Your task to perform on an android device: change alarm snooze length Image 0: 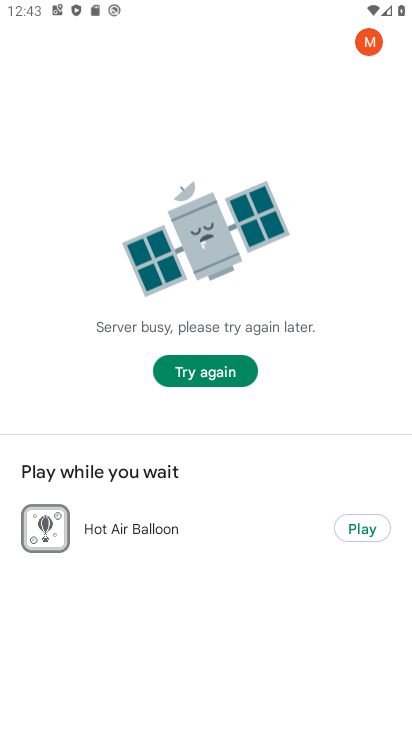
Step 0: press home button
Your task to perform on an android device: change alarm snooze length Image 1: 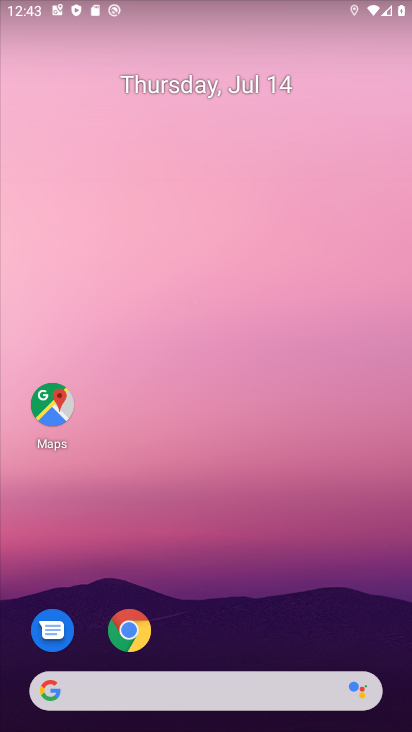
Step 1: drag from (182, 614) to (203, 233)
Your task to perform on an android device: change alarm snooze length Image 2: 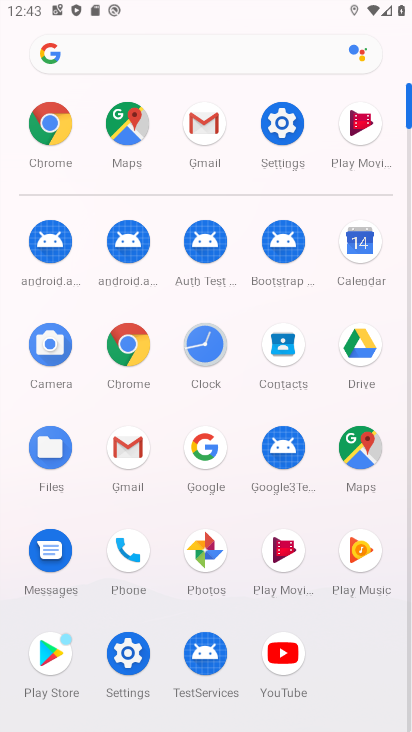
Step 2: click (200, 347)
Your task to perform on an android device: change alarm snooze length Image 3: 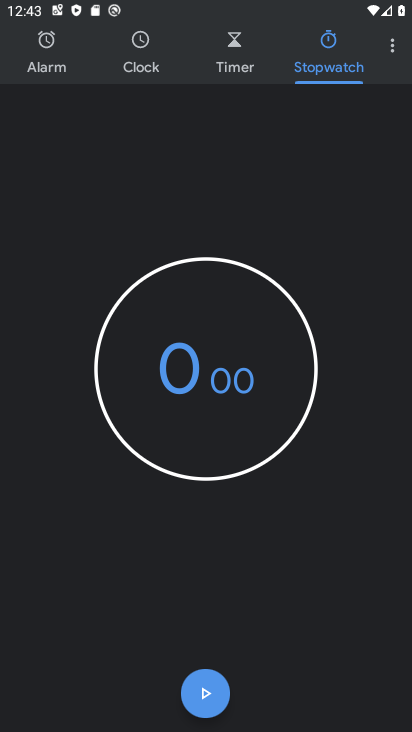
Step 3: click (390, 48)
Your task to perform on an android device: change alarm snooze length Image 4: 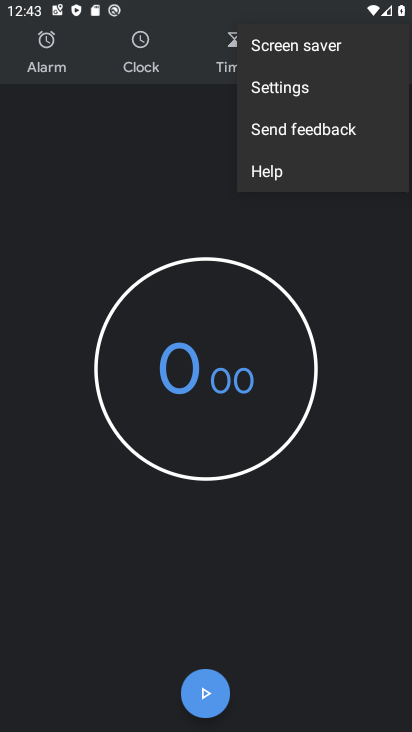
Step 4: click (272, 79)
Your task to perform on an android device: change alarm snooze length Image 5: 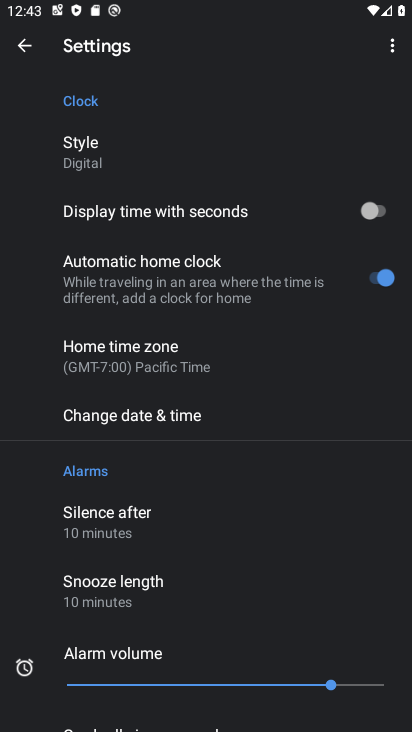
Step 5: click (101, 585)
Your task to perform on an android device: change alarm snooze length Image 6: 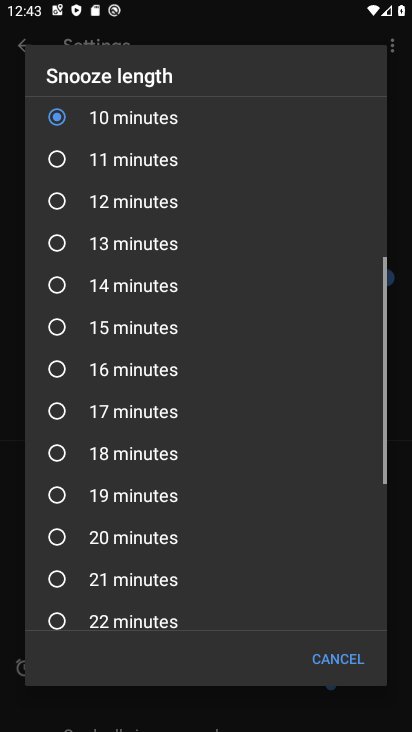
Step 6: click (97, 545)
Your task to perform on an android device: change alarm snooze length Image 7: 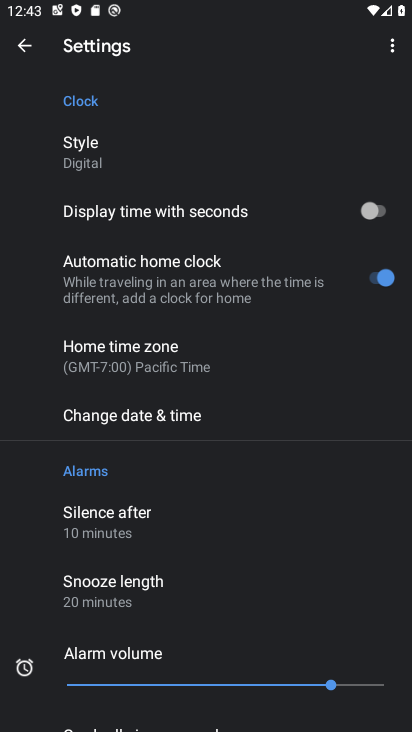
Step 7: task complete